Your task to perform on an android device: Open notification settings Image 0: 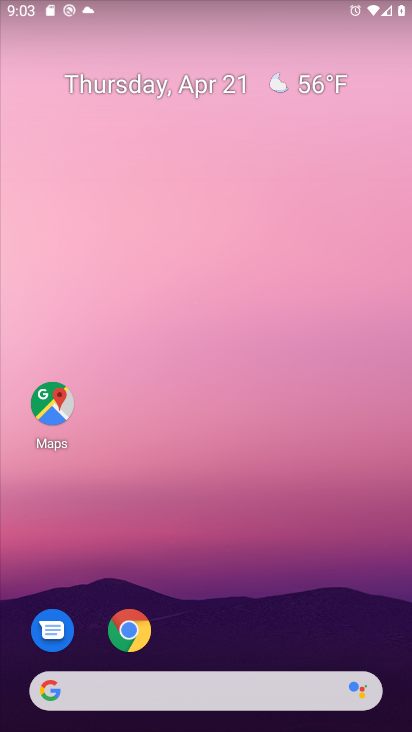
Step 0: click (196, 450)
Your task to perform on an android device: Open notification settings Image 1: 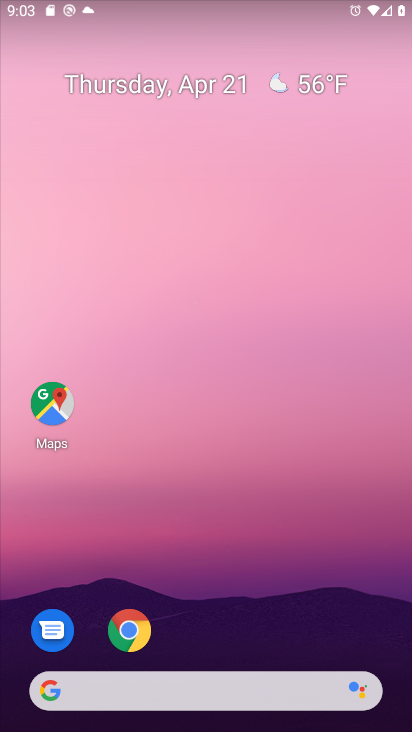
Step 1: drag from (195, 629) to (232, 23)
Your task to perform on an android device: Open notification settings Image 2: 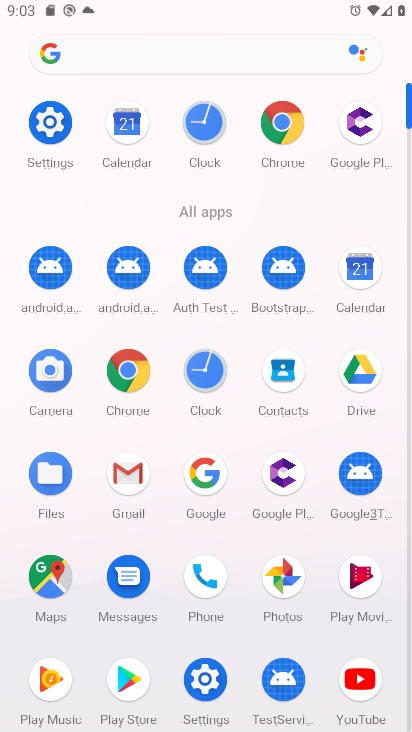
Step 2: click (48, 142)
Your task to perform on an android device: Open notification settings Image 3: 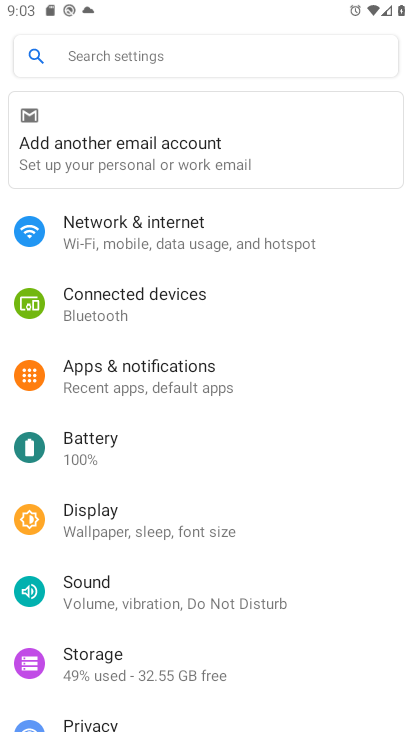
Step 3: click (137, 387)
Your task to perform on an android device: Open notification settings Image 4: 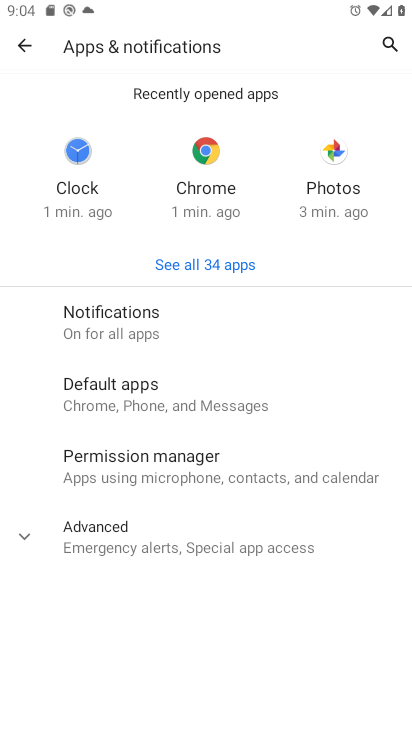
Step 4: click (113, 330)
Your task to perform on an android device: Open notification settings Image 5: 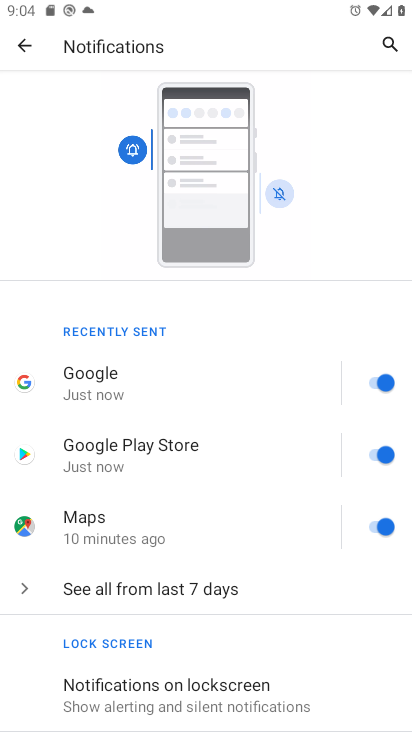
Step 5: task complete